Your task to perform on an android device: toggle data saver in the chrome app Image 0: 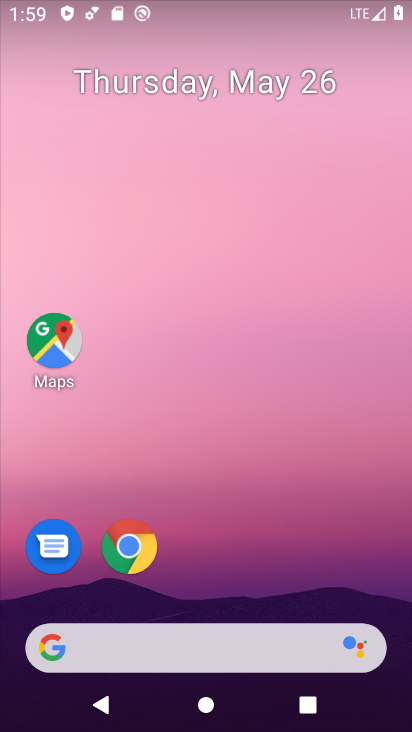
Step 0: click (113, 552)
Your task to perform on an android device: toggle data saver in the chrome app Image 1: 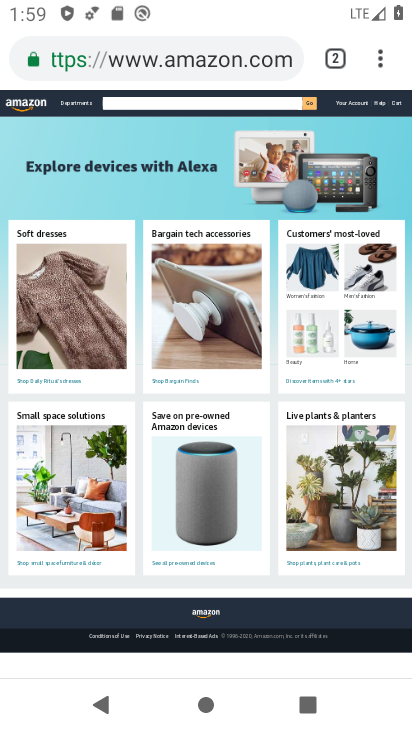
Step 1: click (375, 59)
Your task to perform on an android device: toggle data saver in the chrome app Image 2: 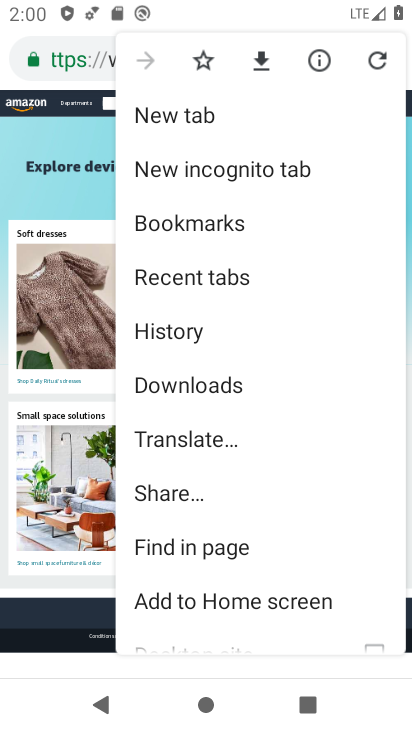
Step 2: drag from (284, 571) to (284, 167)
Your task to perform on an android device: toggle data saver in the chrome app Image 3: 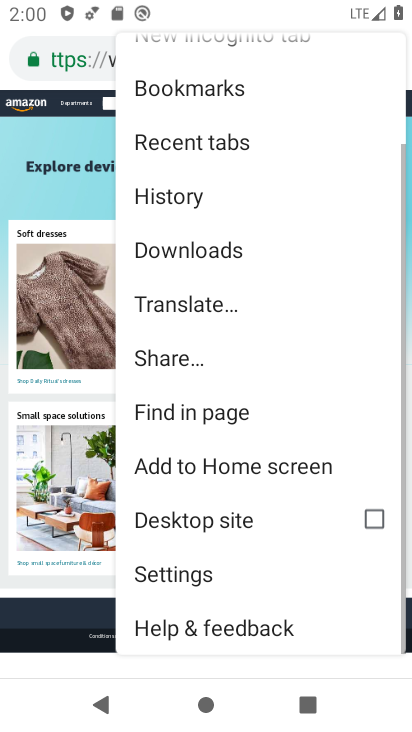
Step 3: click (218, 576)
Your task to perform on an android device: toggle data saver in the chrome app Image 4: 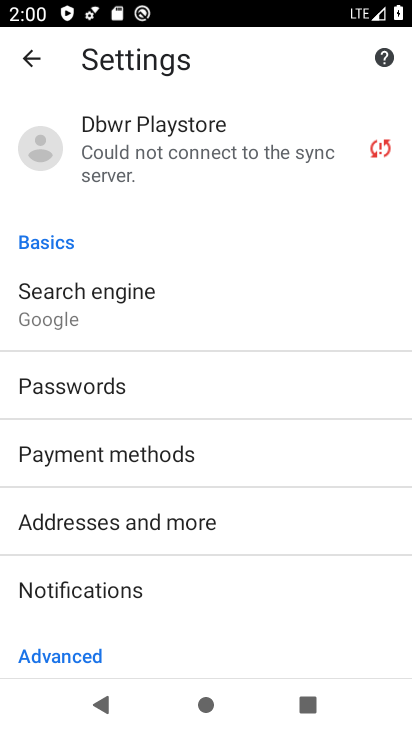
Step 4: drag from (219, 595) to (223, 86)
Your task to perform on an android device: toggle data saver in the chrome app Image 5: 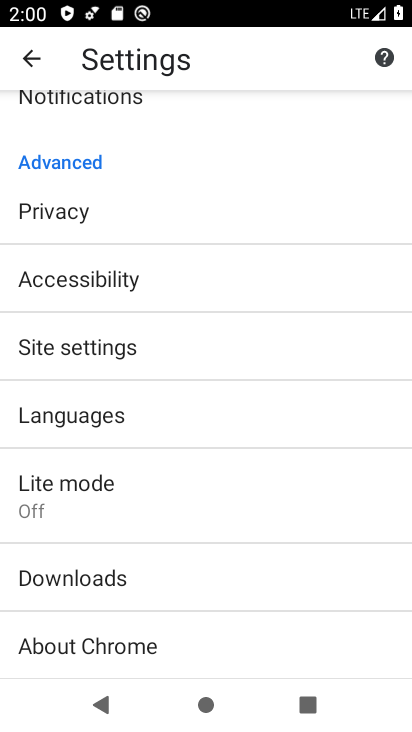
Step 5: drag from (243, 570) to (231, 383)
Your task to perform on an android device: toggle data saver in the chrome app Image 6: 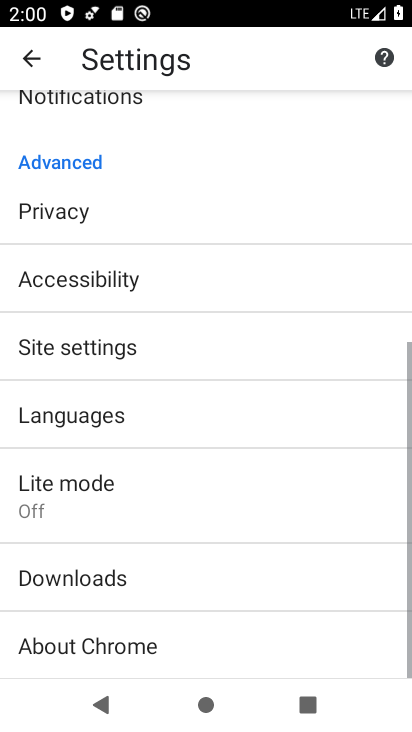
Step 6: click (161, 483)
Your task to perform on an android device: toggle data saver in the chrome app Image 7: 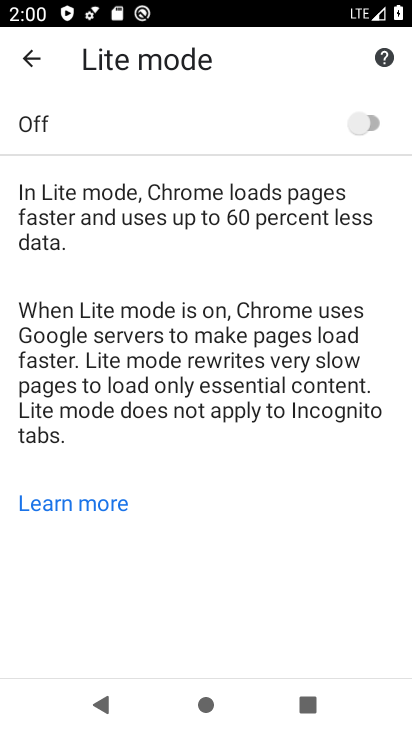
Step 7: click (354, 132)
Your task to perform on an android device: toggle data saver in the chrome app Image 8: 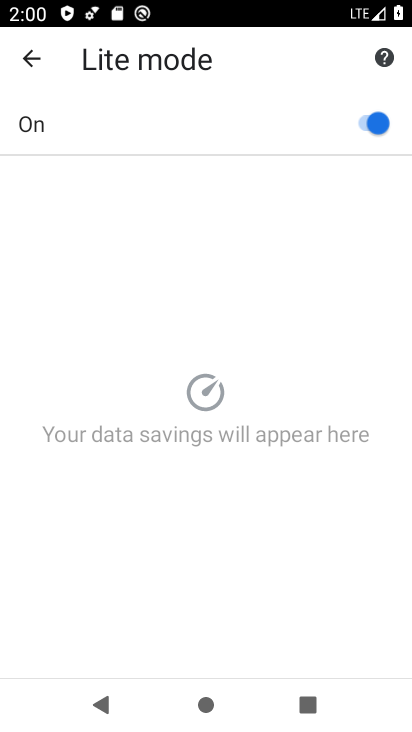
Step 8: task complete